Your task to perform on an android device: set the stopwatch Image 0: 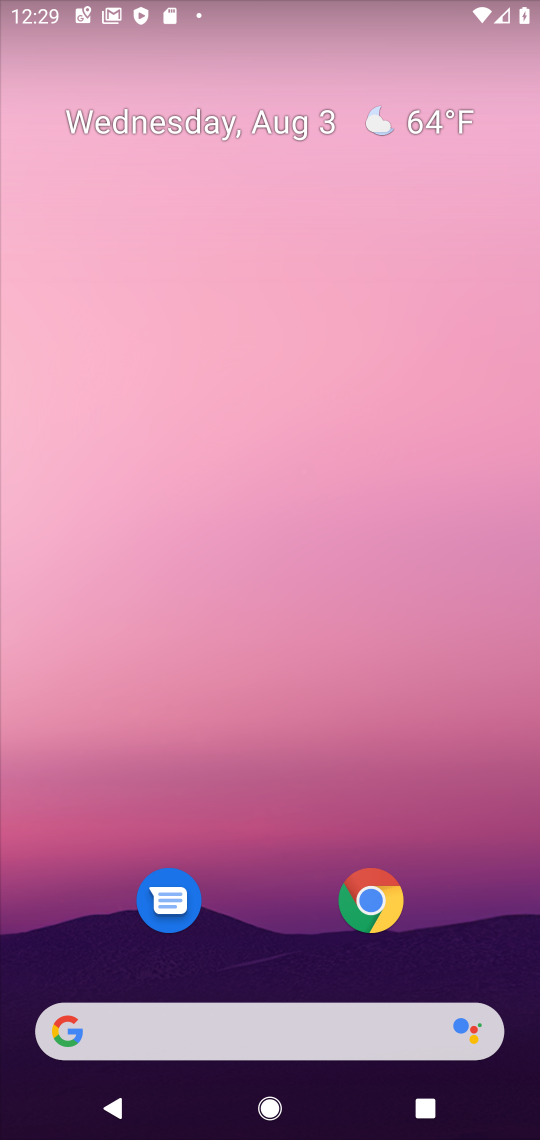
Step 0: drag from (276, 914) to (355, 75)
Your task to perform on an android device: set the stopwatch Image 1: 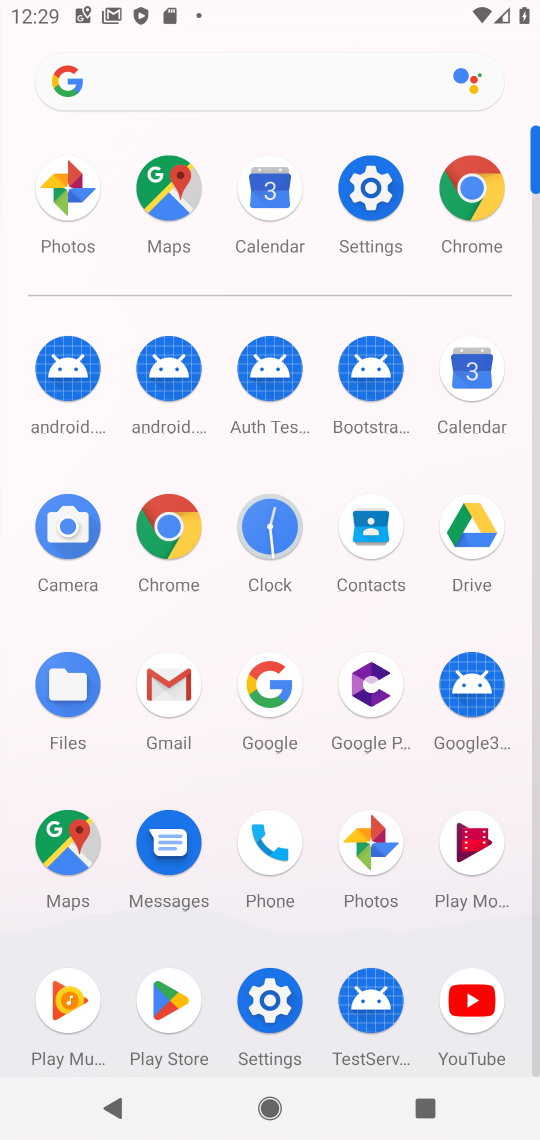
Step 1: click (265, 535)
Your task to perform on an android device: set the stopwatch Image 2: 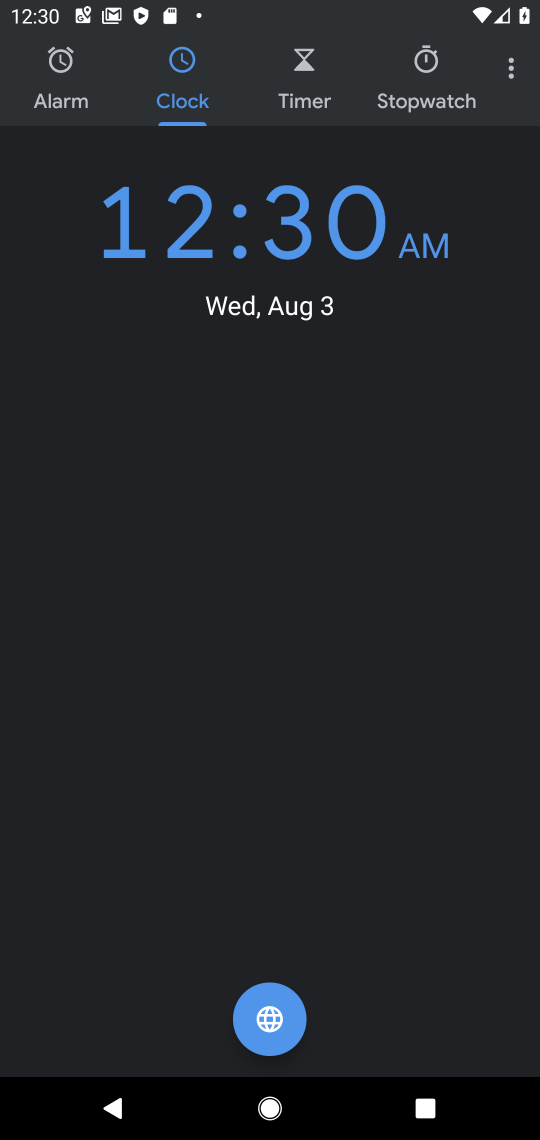
Step 2: click (460, 84)
Your task to perform on an android device: set the stopwatch Image 3: 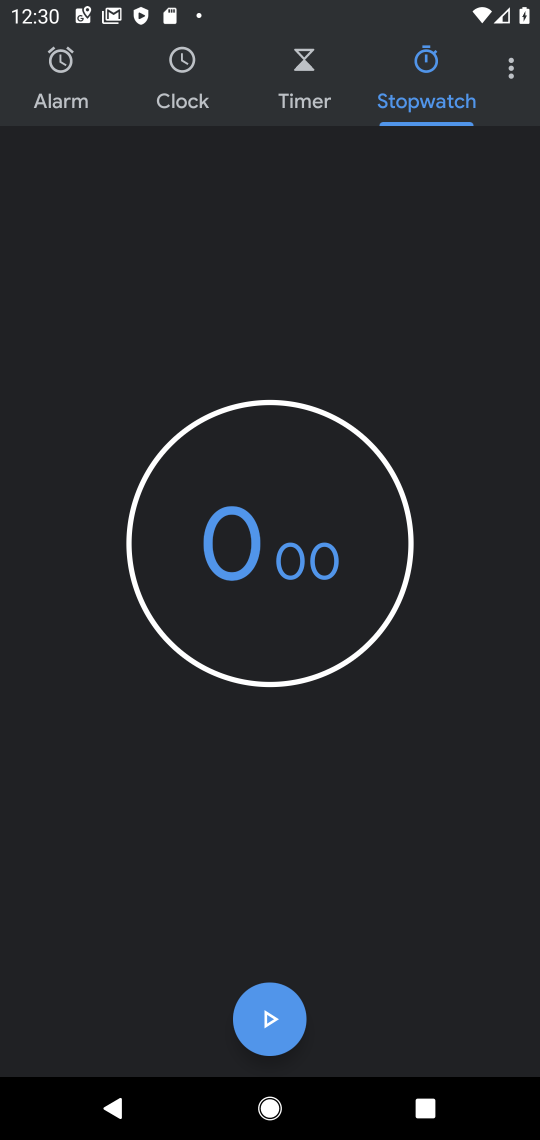
Step 3: click (274, 1026)
Your task to perform on an android device: set the stopwatch Image 4: 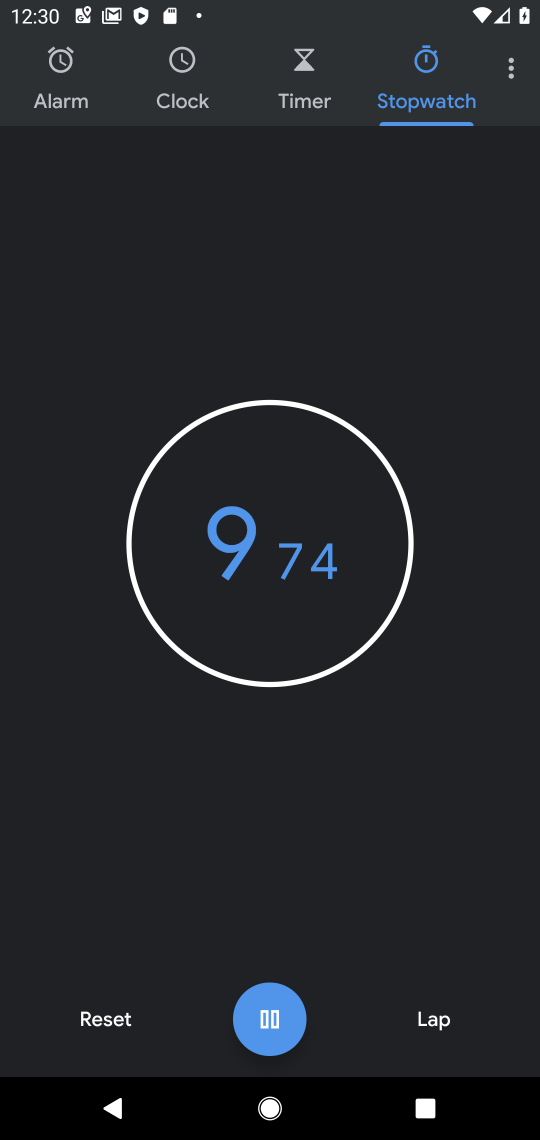
Step 4: click (303, 1001)
Your task to perform on an android device: set the stopwatch Image 5: 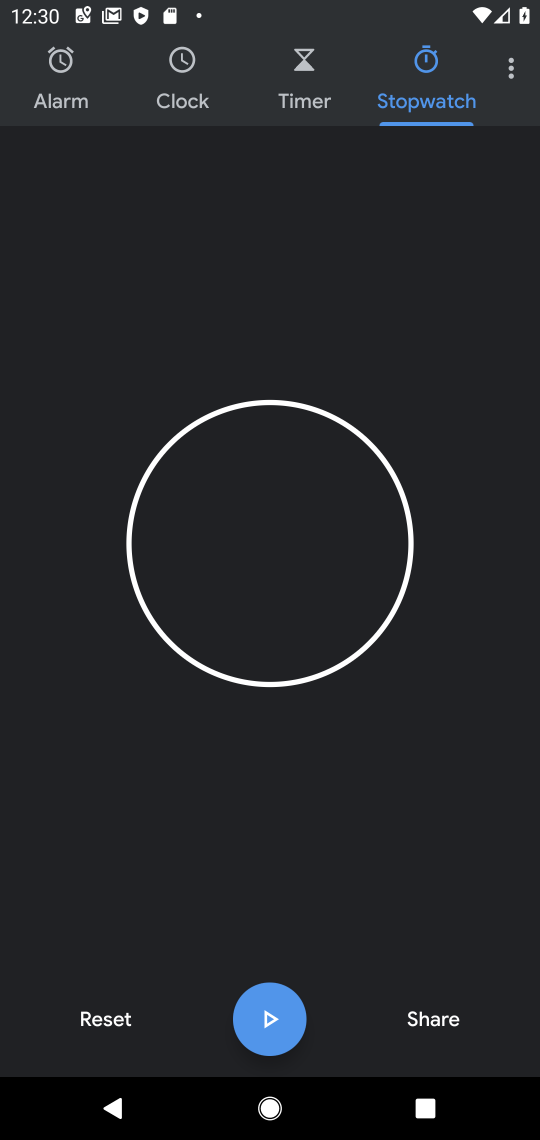
Step 5: task complete